Your task to perform on an android device: toggle location history Image 0: 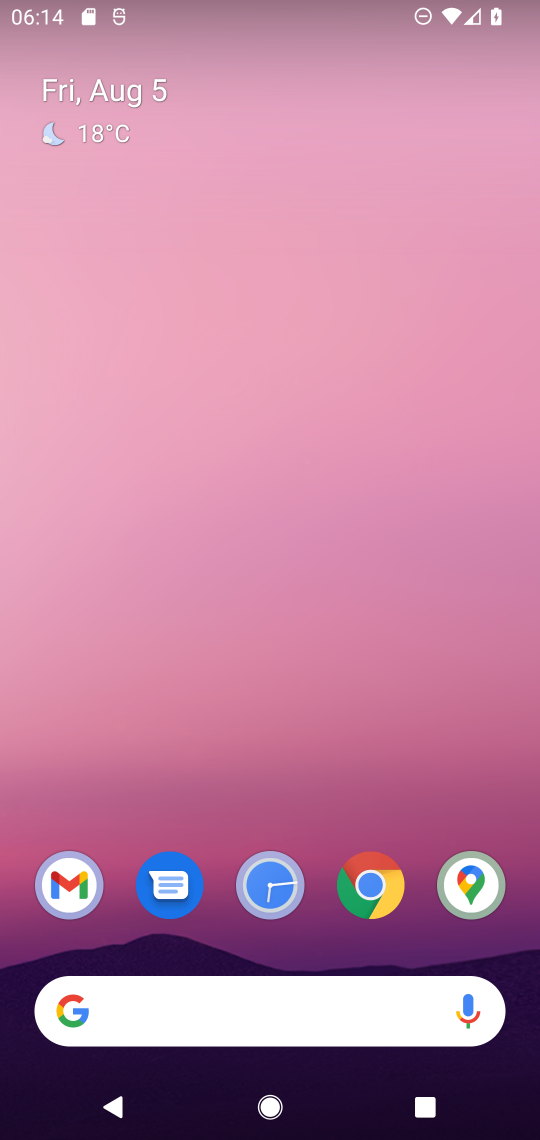
Step 0: drag from (300, 956) to (317, 138)
Your task to perform on an android device: toggle location history Image 1: 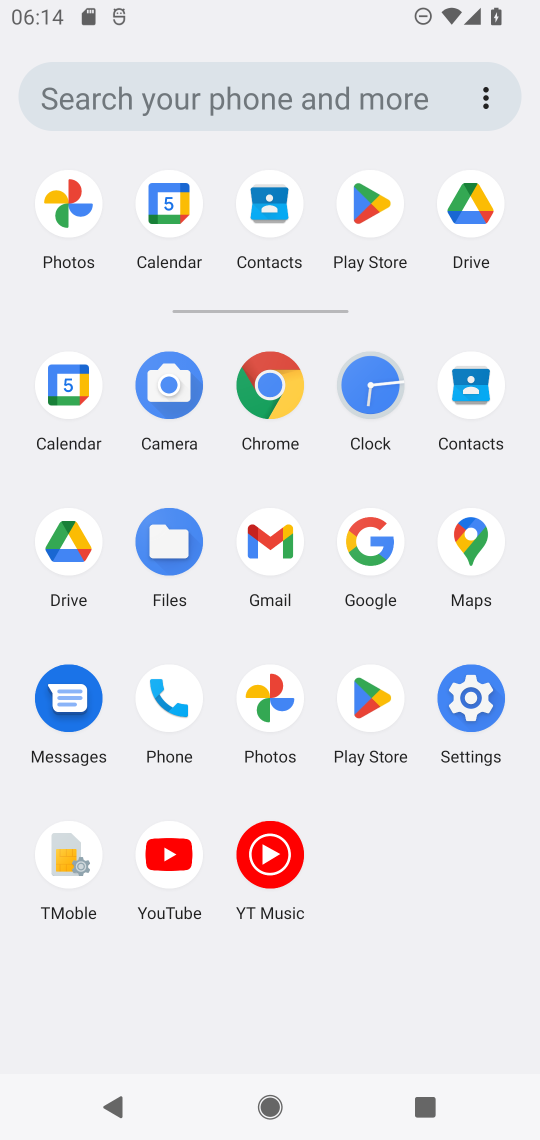
Step 1: click (467, 689)
Your task to perform on an android device: toggle location history Image 2: 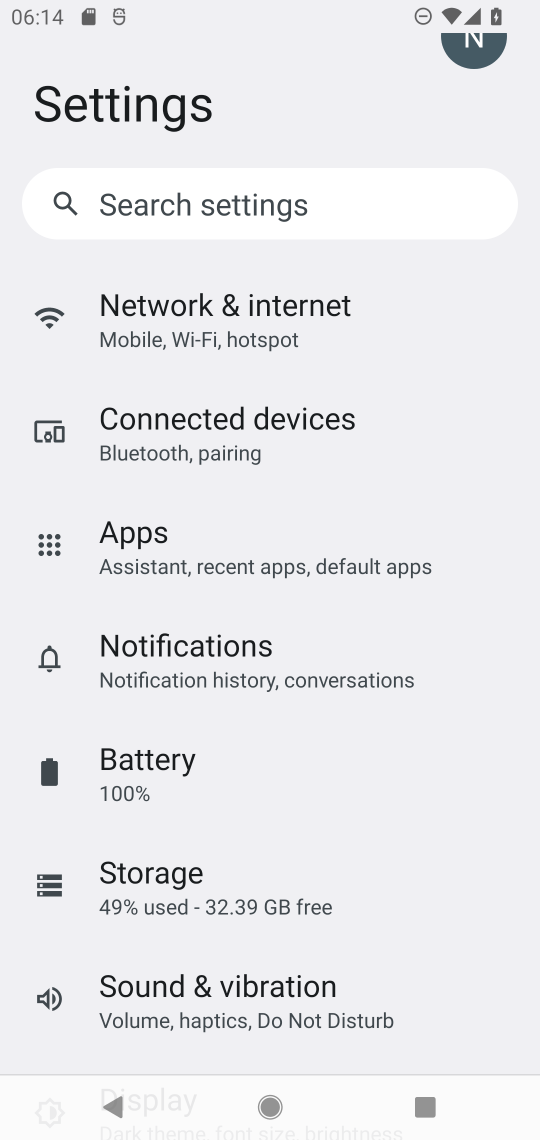
Step 2: drag from (256, 916) to (242, 486)
Your task to perform on an android device: toggle location history Image 3: 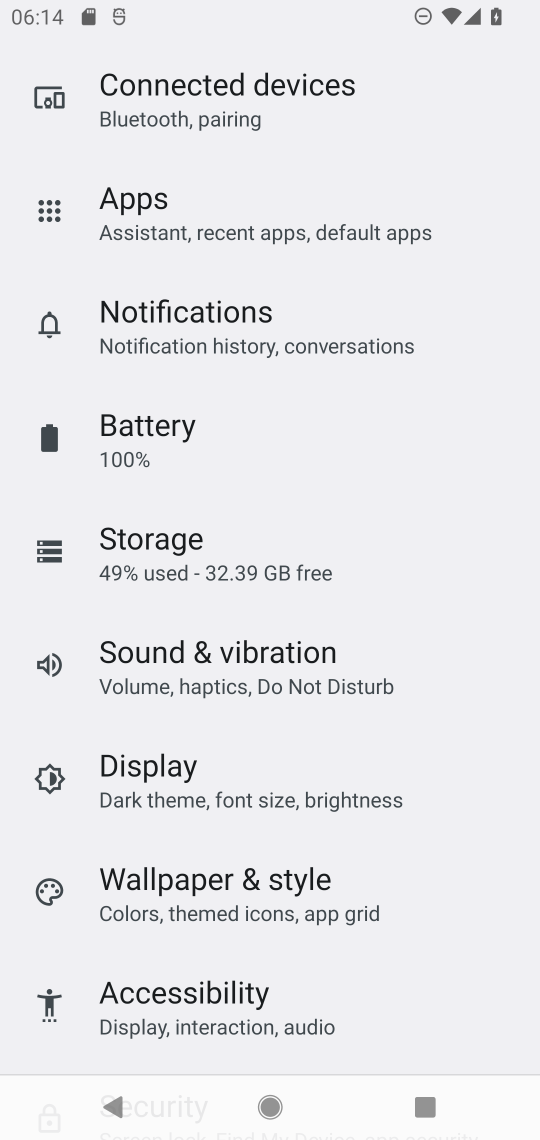
Step 3: drag from (213, 943) to (184, 404)
Your task to perform on an android device: toggle location history Image 4: 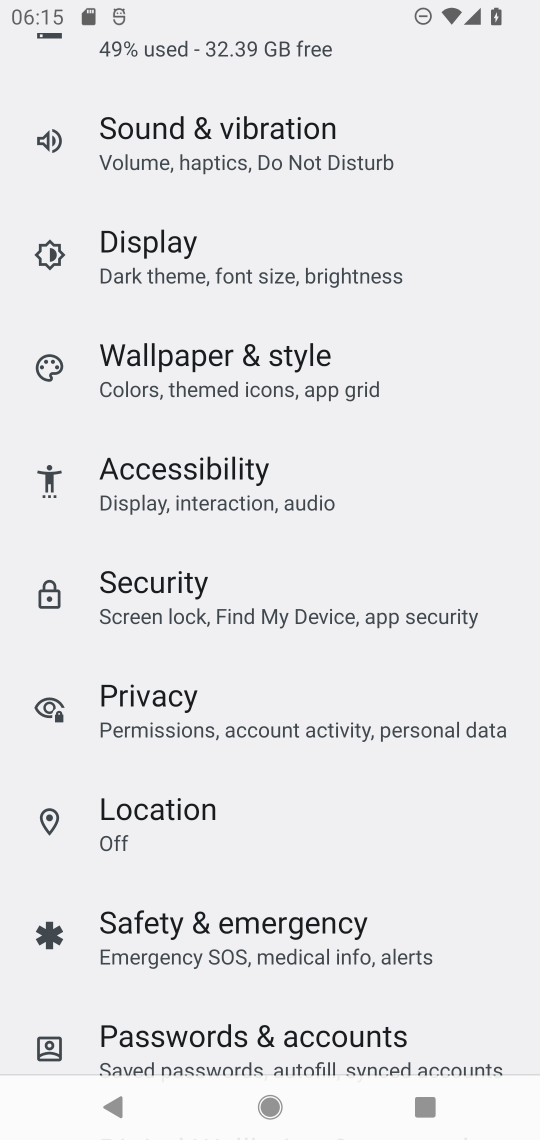
Step 4: click (136, 869)
Your task to perform on an android device: toggle location history Image 5: 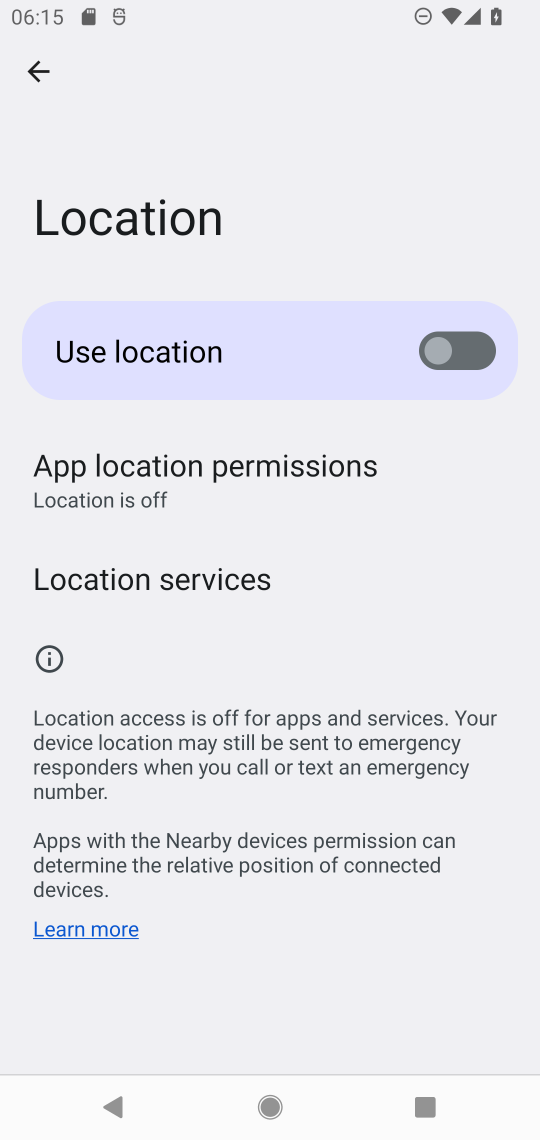
Step 5: click (159, 576)
Your task to perform on an android device: toggle location history Image 6: 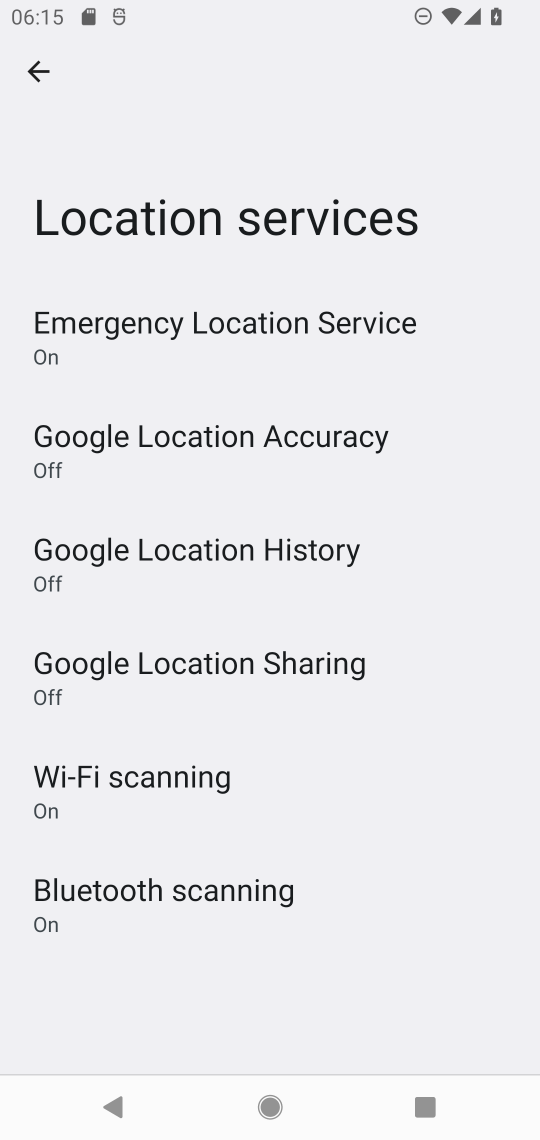
Step 6: click (209, 548)
Your task to perform on an android device: toggle location history Image 7: 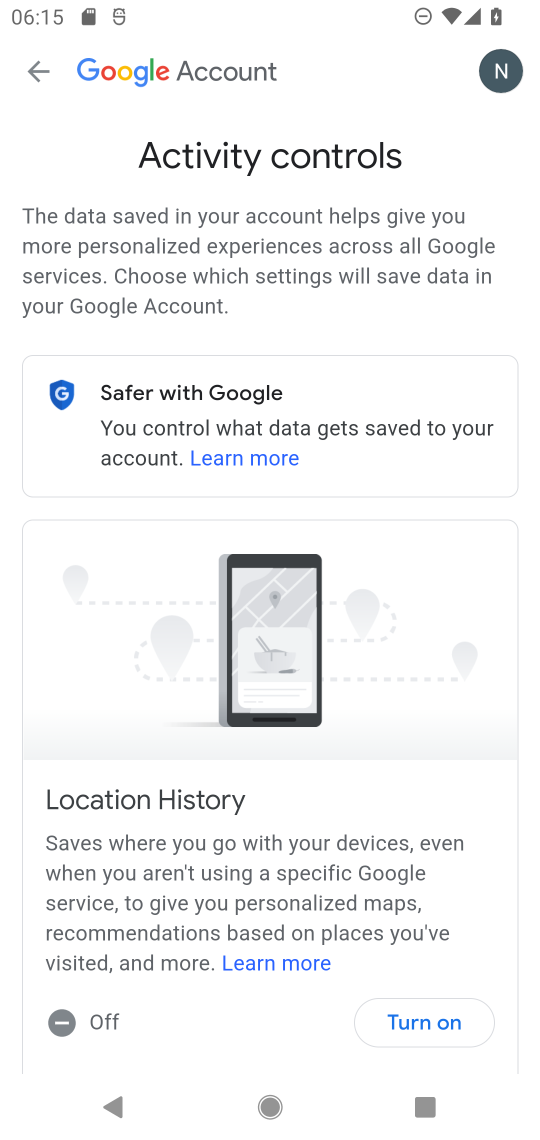
Step 7: click (425, 1015)
Your task to perform on an android device: toggle location history Image 8: 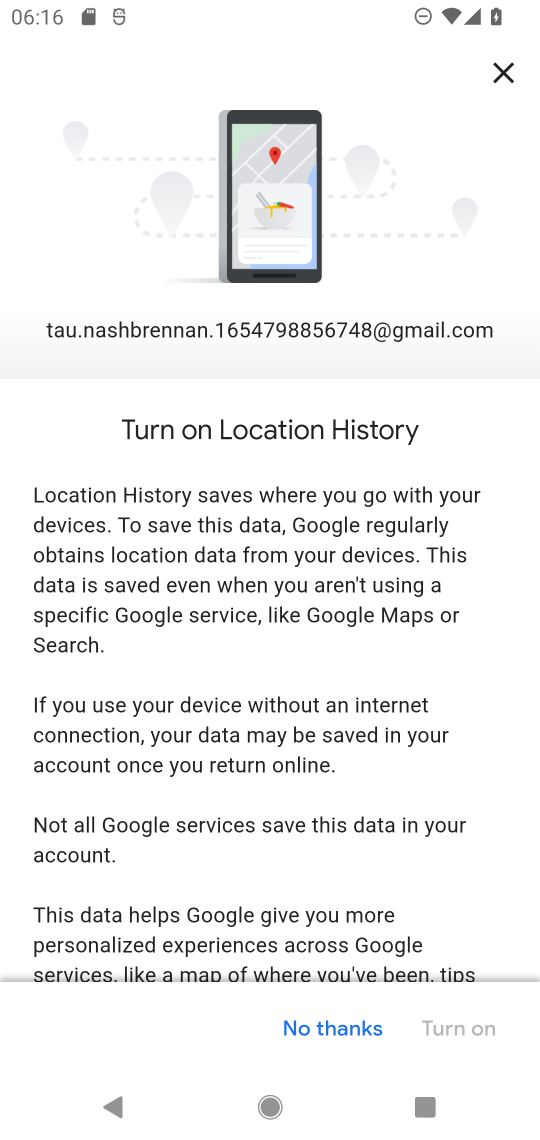
Step 8: drag from (462, 932) to (433, 474)
Your task to perform on an android device: toggle location history Image 9: 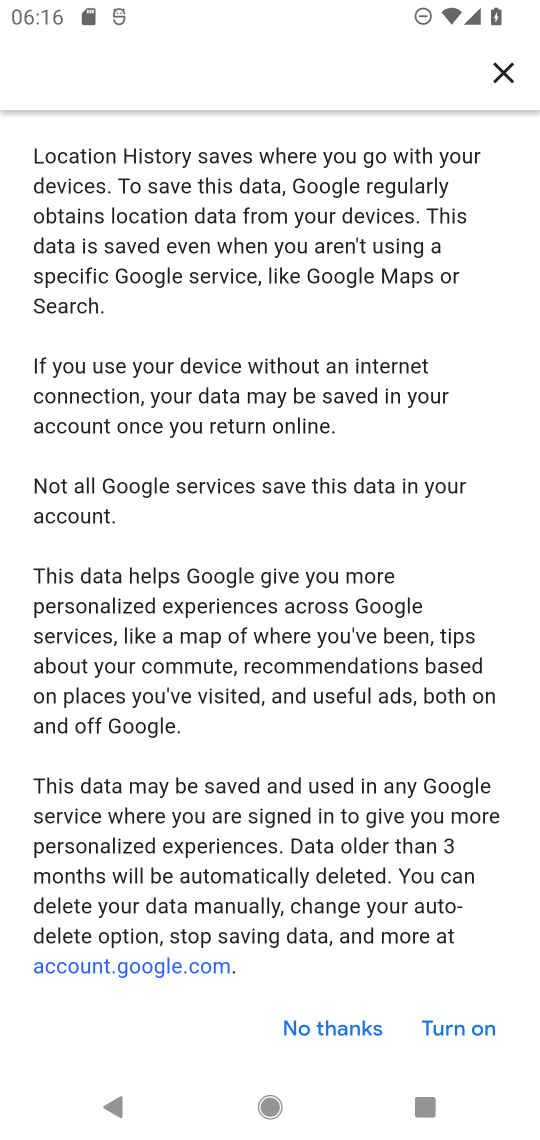
Step 9: click (457, 1021)
Your task to perform on an android device: toggle location history Image 10: 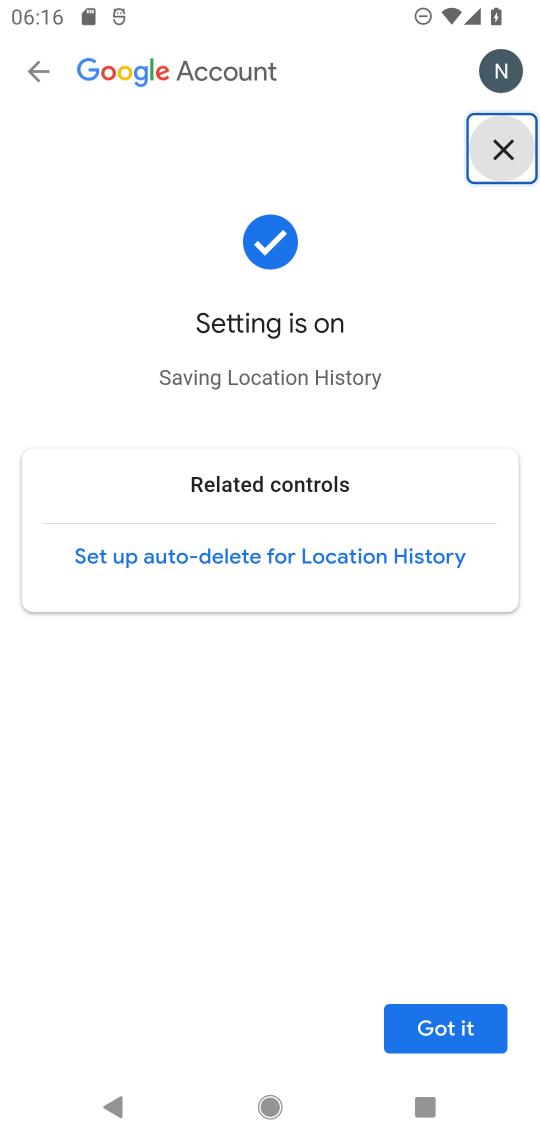
Step 10: click (444, 1023)
Your task to perform on an android device: toggle location history Image 11: 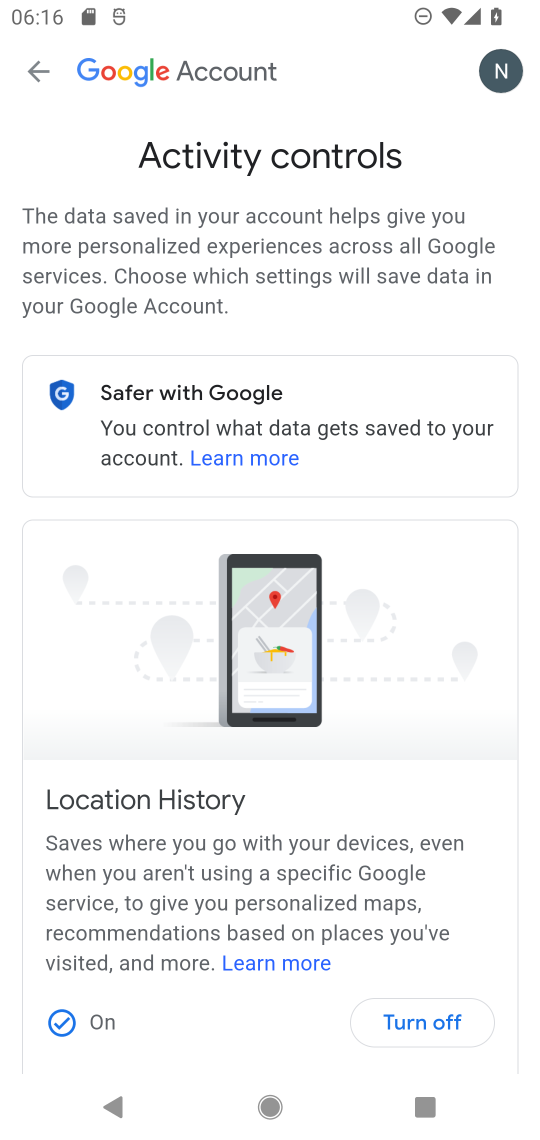
Step 11: task complete